Your task to perform on an android device: read, delete, or share a saved page in the chrome app Image 0: 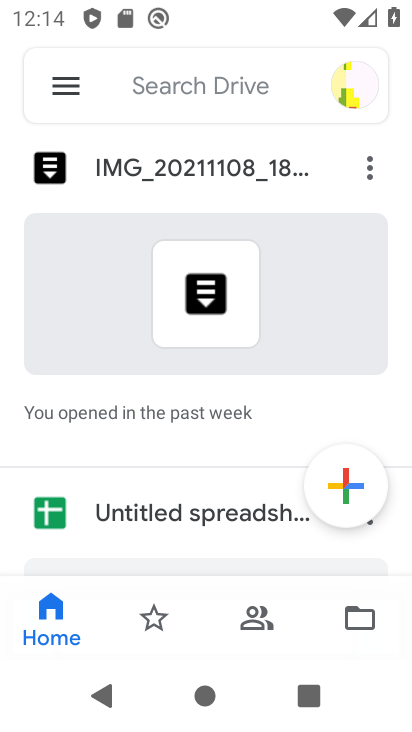
Step 0: press home button
Your task to perform on an android device: read, delete, or share a saved page in the chrome app Image 1: 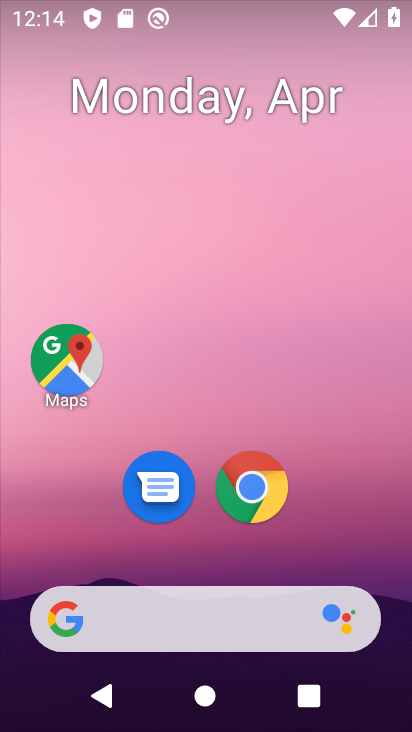
Step 1: drag from (395, 617) to (258, 61)
Your task to perform on an android device: read, delete, or share a saved page in the chrome app Image 2: 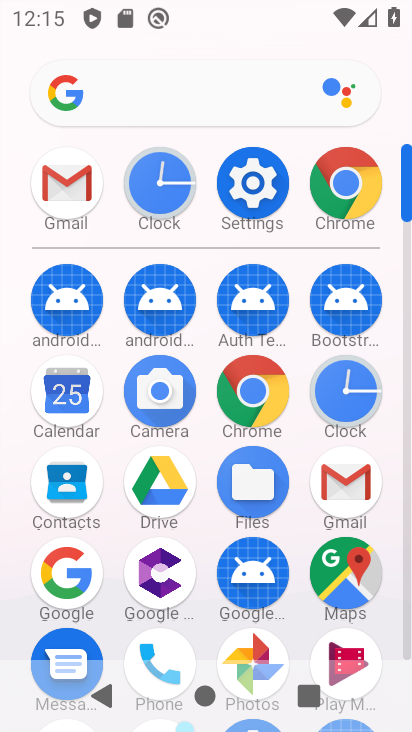
Step 2: click (255, 387)
Your task to perform on an android device: read, delete, or share a saved page in the chrome app Image 3: 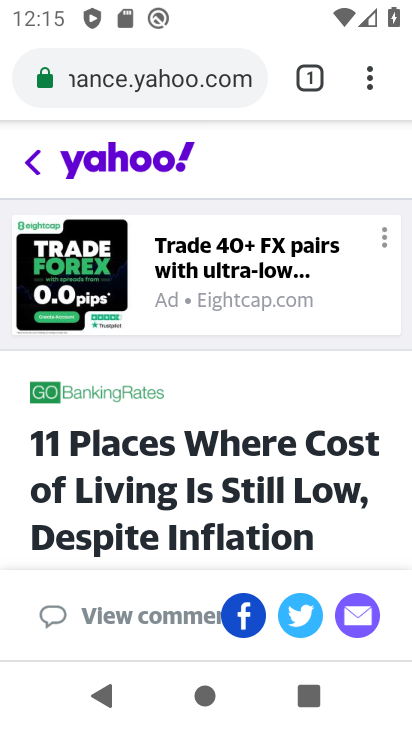
Step 3: task complete